Your task to perform on an android device: find which apps use the phone's location Image 0: 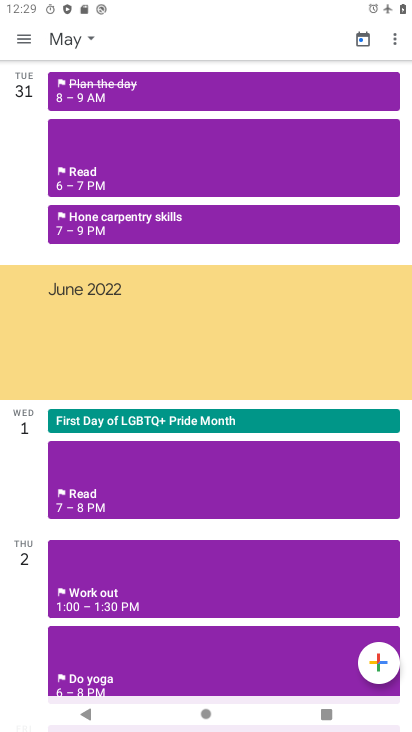
Step 0: press home button
Your task to perform on an android device: find which apps use the phone's location Image 1: 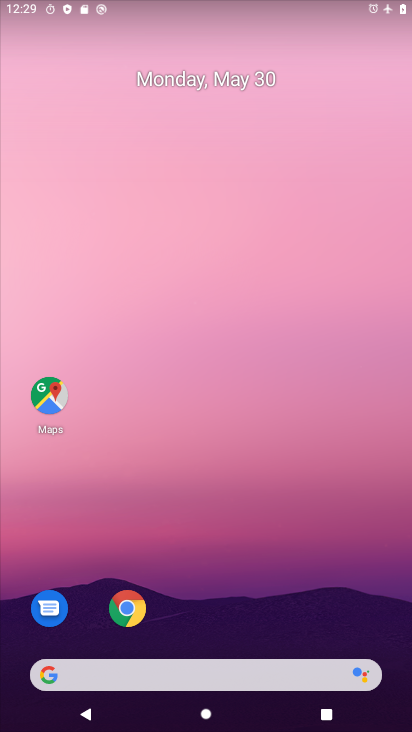
Step 1: drag from (197, 638) to (101, 81)
Your task to perform on an android device: find which apps use the phone's location Image 2: 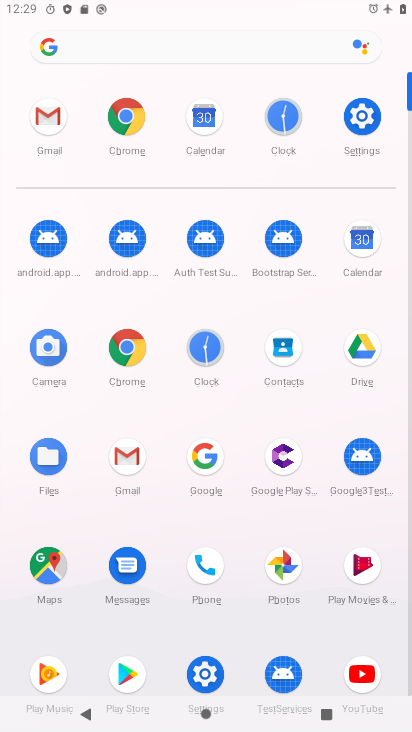
Step 2: click (359, 119)
Your task to perform on an android device: find which apps use the phone's location Image 3: 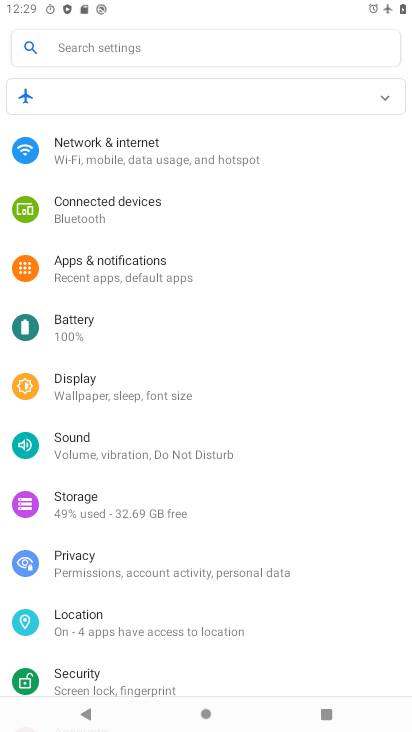
Step 3: click (95, 604)
Your task to perform on an android device: find which apps use the phone's location Image 4: 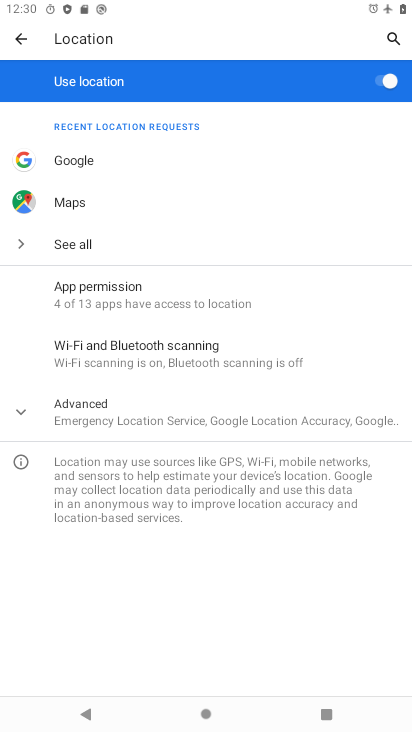
Step 4: click (71, 295)
Your task to perform on an android device: find which apps use the phone's location Image 5: 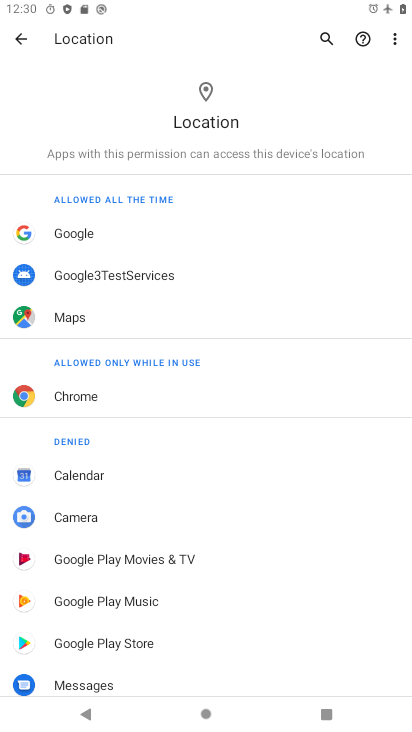
Step 5: task complete